Your task to perform on an android device: all mails in gmail Image 0: 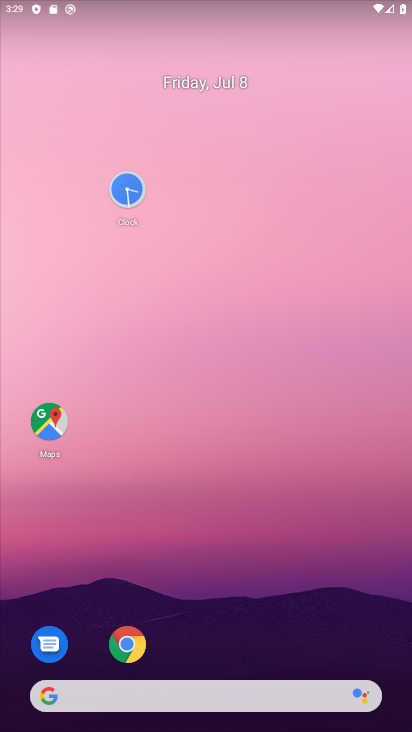
Step 0: drag from (340, 612) to (184, 281)
Your task to perform on an android device: all mails in gmail Image 1: 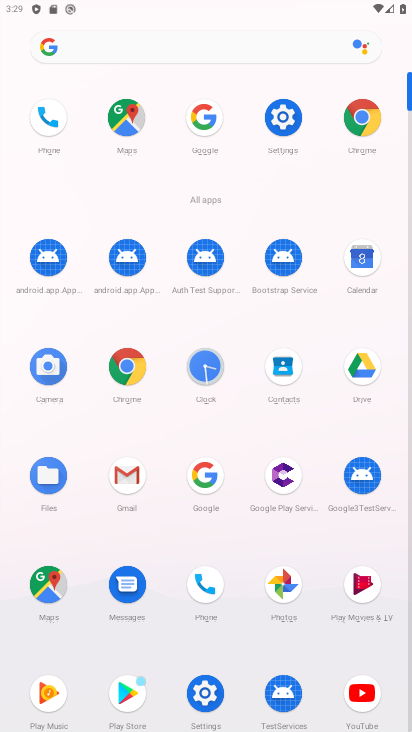
Step 1: drag from (178, 465) to (72, 102)
Your task to perform on an android device: all mails in gmail Image 2: 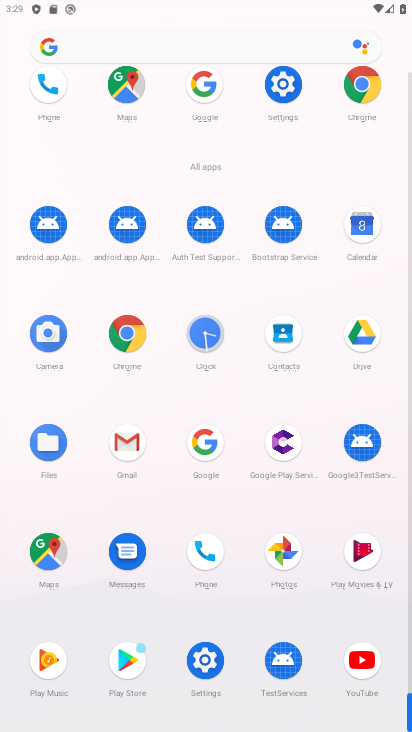
Step 2: drag from (245, 638) to (164, 160)
Your task to perform on an android device: all mails in gmail Image 3: 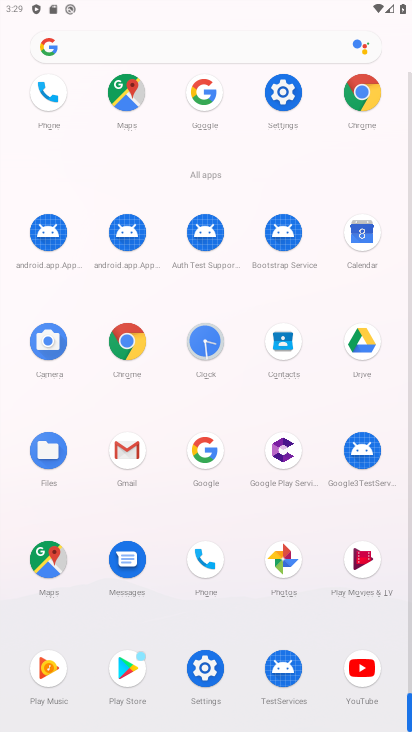
Step 3: drag from (254, 569) to (171, 152)
Your task to perform on an android device: all mails in gmail Image 4: 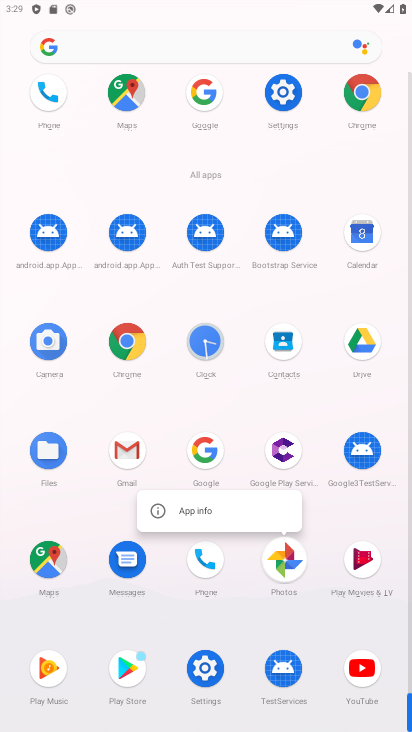
Step 4: click (205, 25)
Your task to perform on an android device: all mails in gmail Image 5: 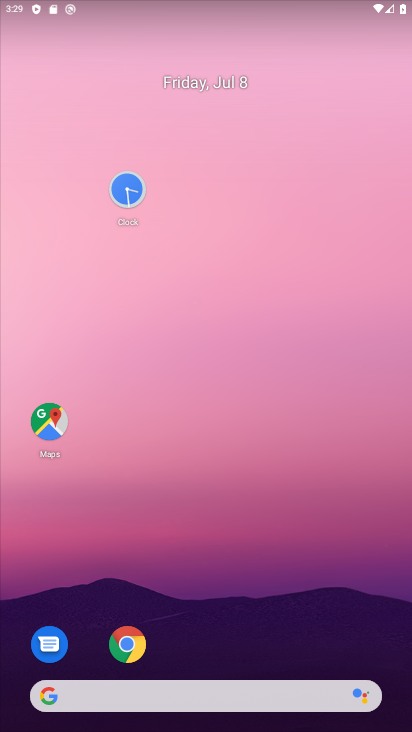
Step 5: click (126, 427)
Your task to perform on an android device: all mails in gmail Image 6: 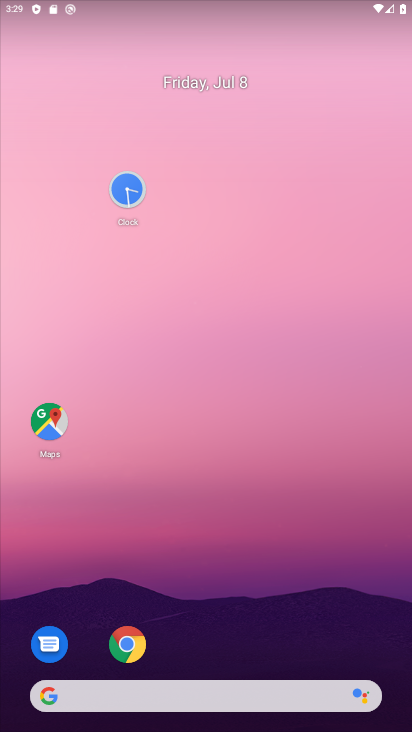
Step 6: drag from (236, 613) to (163, 184)
Your task to perform on an android device: all mails in gmail Image 7: 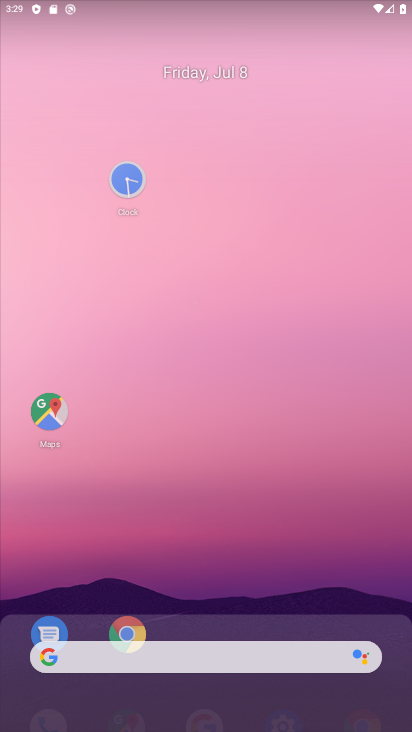
Step 7: drag from (287, 566) to (224, 149)
Your task to perform on an android device: all mails in gmail Image 8: 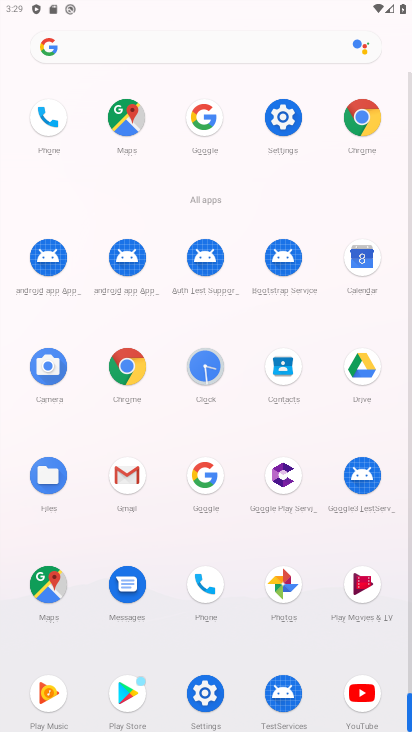
Step 8: drag from (219, 391) to (159, 78)
Your task to perform on an android device: all mails in gmail Image 9: 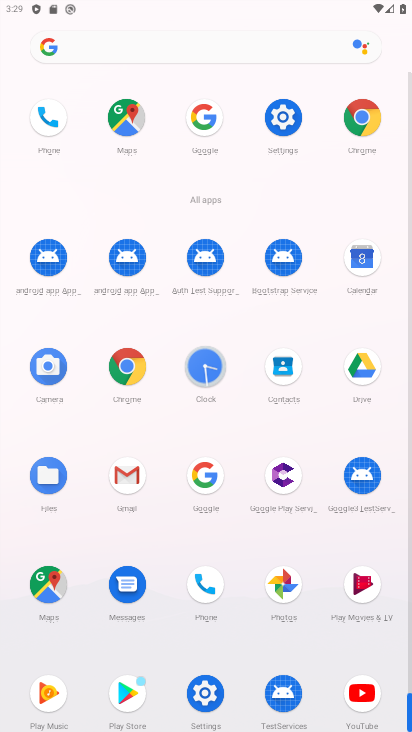
Step 9: drag from (265, 474) to (270, 215)
Your task to perform on an android device: all mails in gmail Image 10: 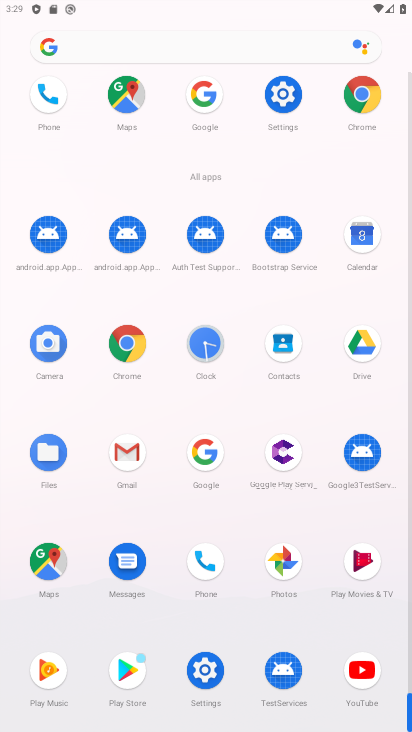
Step 10: drag from (303, 415) to (264, 187)
Your task to perform on an android device: all mails in gmail Image 11: 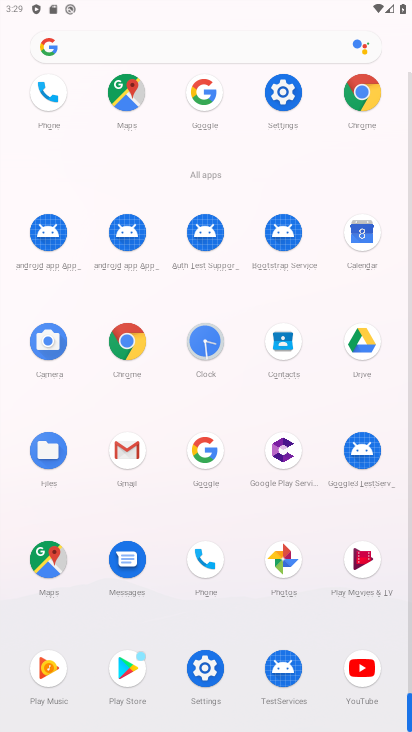
Step 11: click (264, 215)
Your task to perform on an android device: all mails in gmail Image 12: 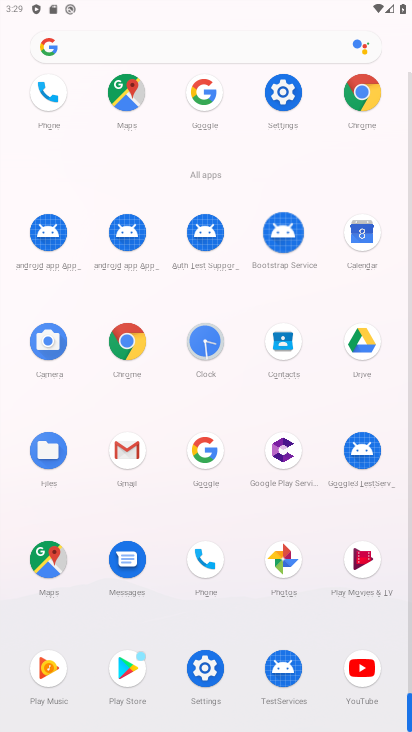
Step 12: click (134, 451)
Your task to perform on an android device: all mails in gmail Image 13: 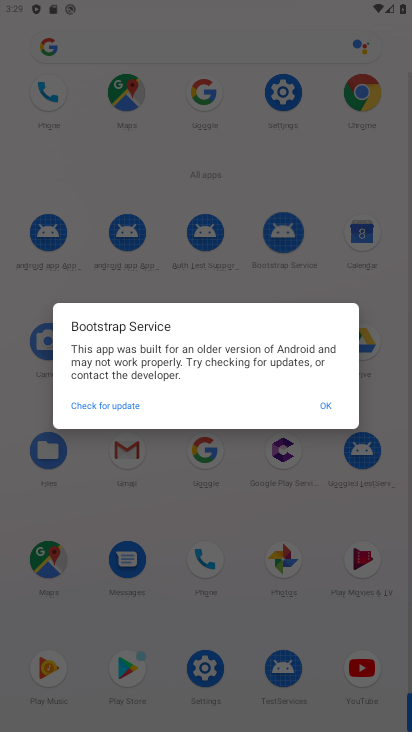
Step 13: click (134, 451)
Your task to perform on an android device: all mails in gmail Image 14: 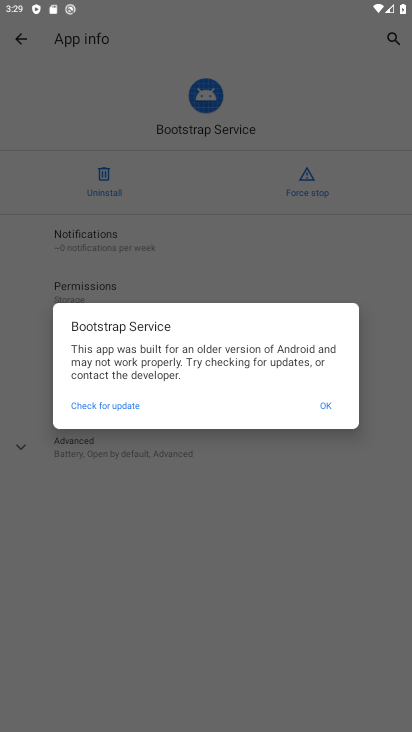
Step 14: click (324, 400)
Your task to perform on an android device: all mails in gmail Image 15: 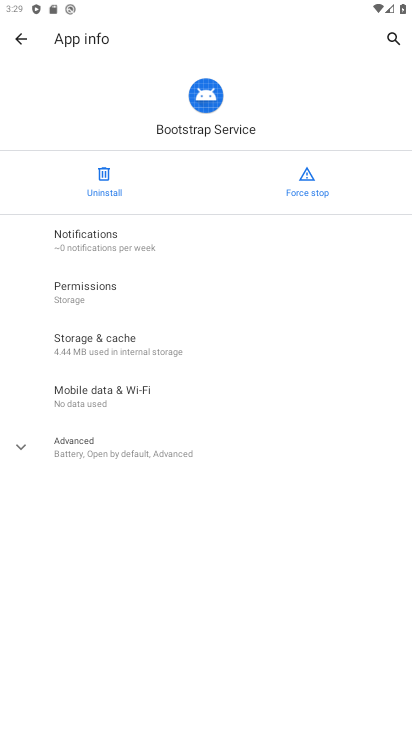
Step 15: click (325, 399)
Your task to perform on an android device: all mails in gmail Image 16: 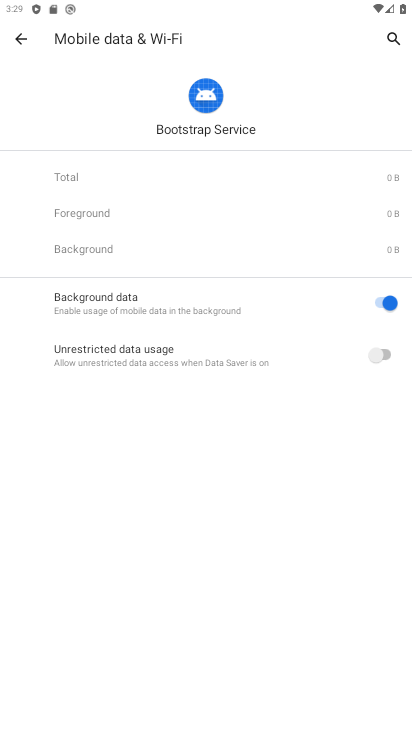
Step 16: task complete